Your task to perform on an android device: set the stopwatch Image 0: 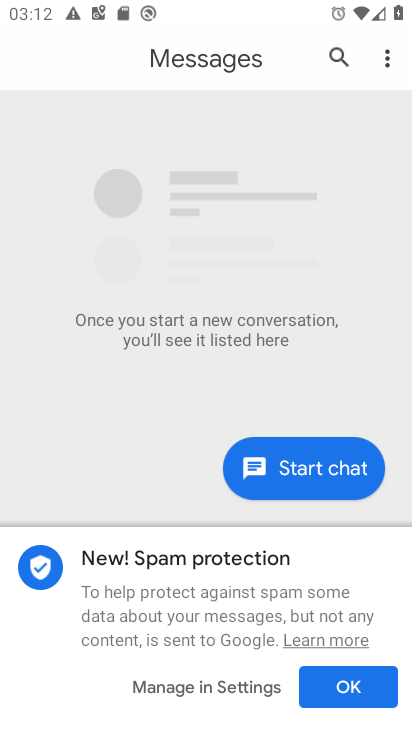
Step 0: press home button
Your task to perform on an android device: set the stopwatch Image 1: 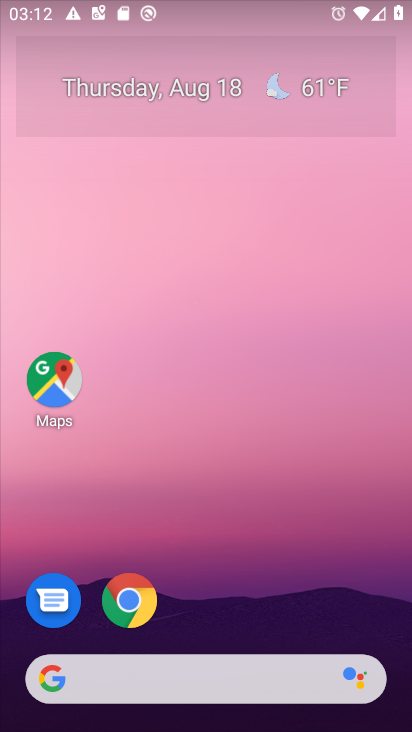
Step 1: drag from (263, 181) to (267, 120)
Your task to perform on an android device: set the stopwatch Image 2: 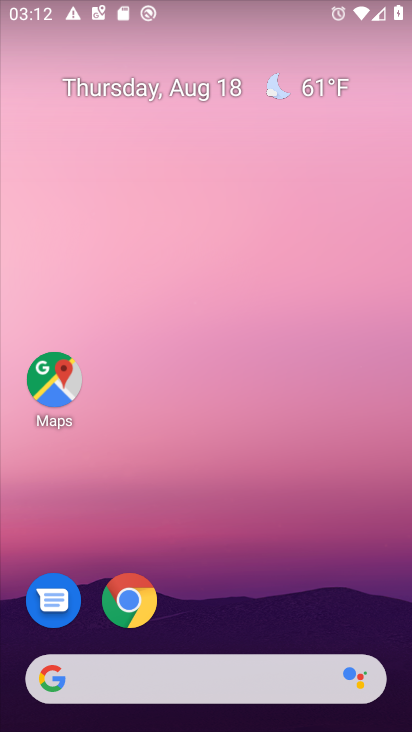
Step 2: drag from (254, 636) to (297, 207)
Your task to perform on an android device: set the stopwatch Image 3: 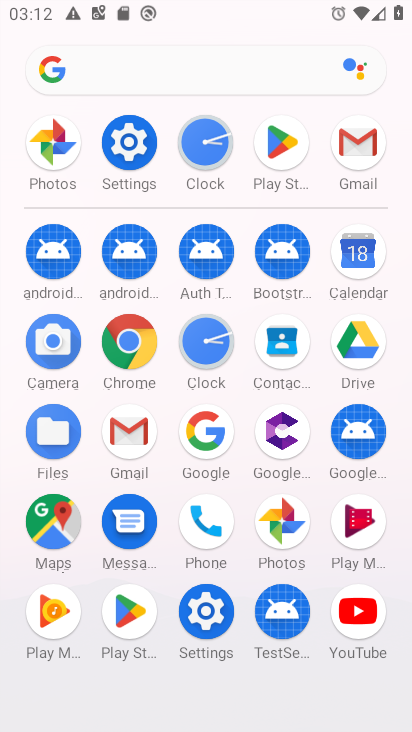
Step 3: click (211, 343)
Your task to perform on an android device: set the stopwatch Image 4: 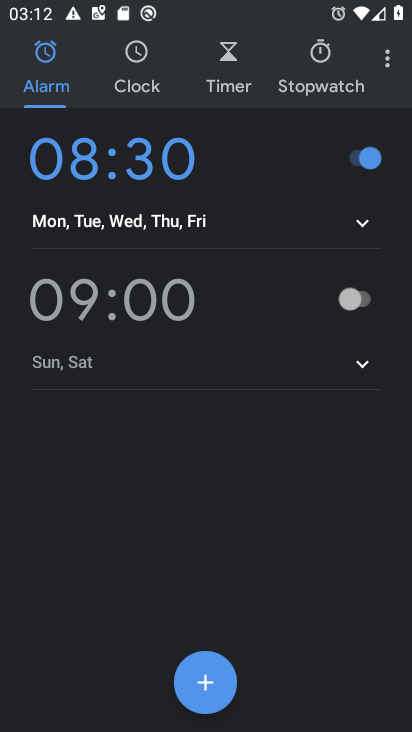
Step 4: click (315, 62)
Your task to perform on an android device: set the stopwatch Image 5: 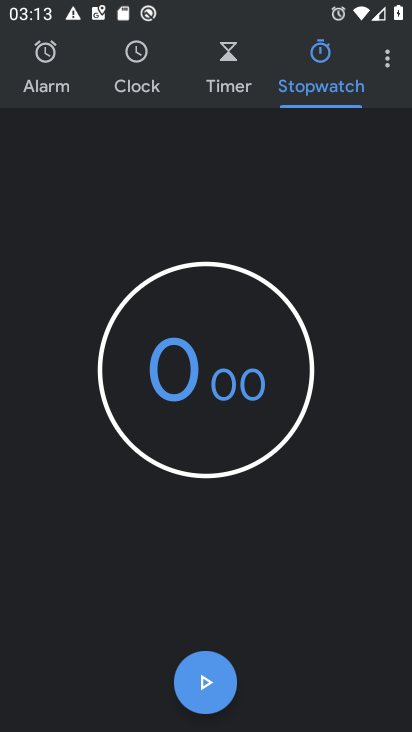
Step 5: click (209, 684)
Your task to perform on an android device: set the stopwatch Image 6: 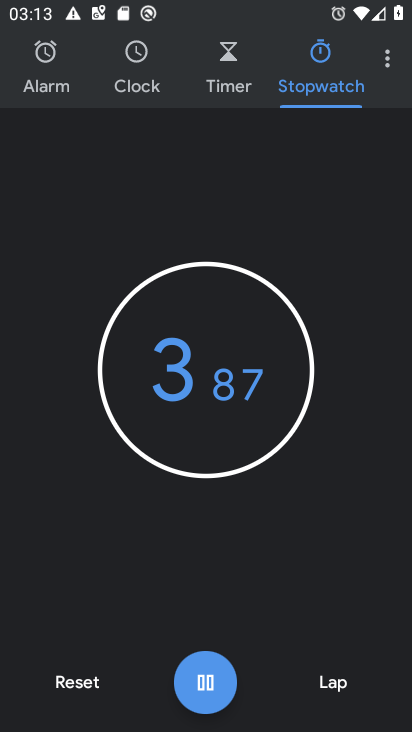
Step 6: task complete